Your task to perform on an android device: see sites visited before in the chrome app Image 0: 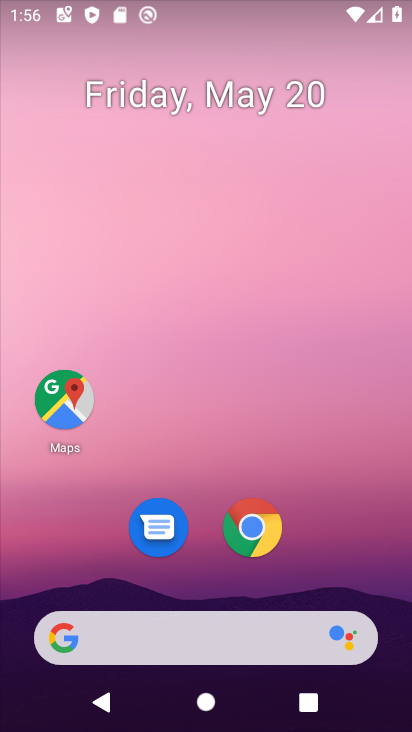
Step 0: click (254, 526)
Your task to perform on an android device: see sites visited before in the chrome app Image 1: 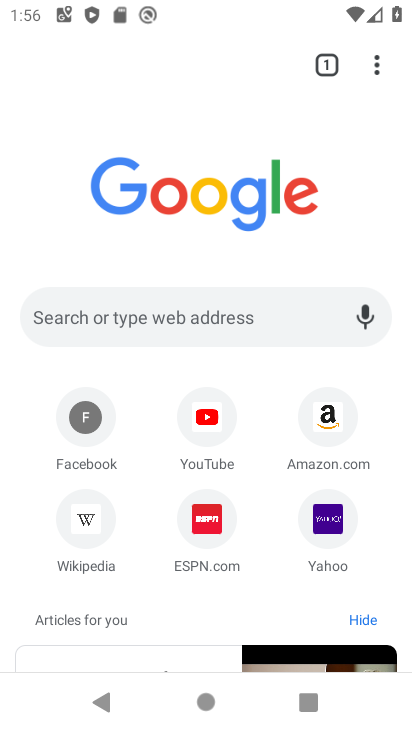
Step 1: click (380, 65)
Your task to perform on an android device: see sites visited before in the chrome app Image 2: 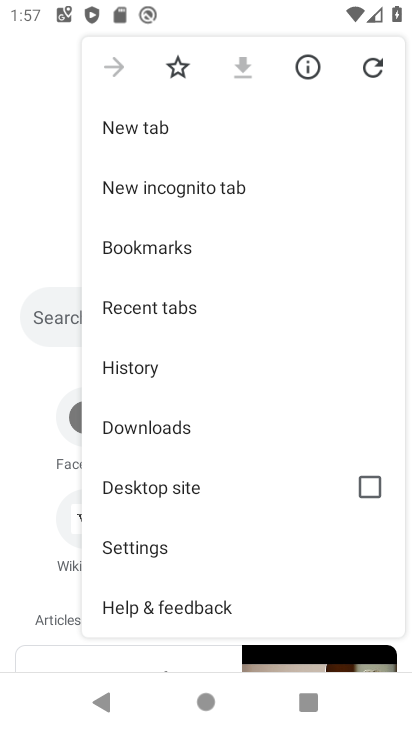
Step 2: click (189, 298)
Your task to perform on an android device: see sites visited before in the chrome app Image 3: 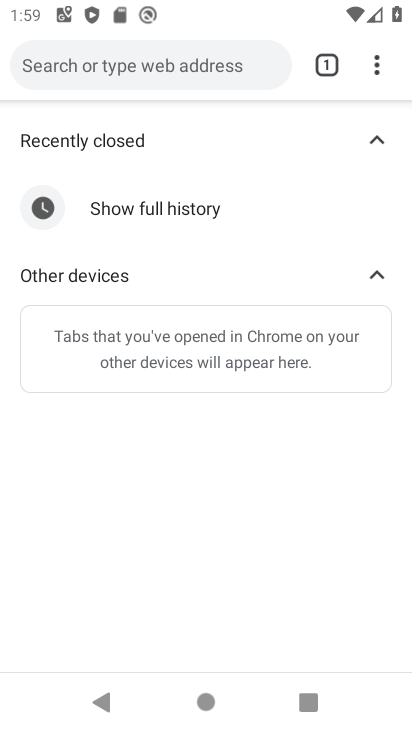
Step 3: task complete